Your task to perform on an android device: turn off location Image 0: 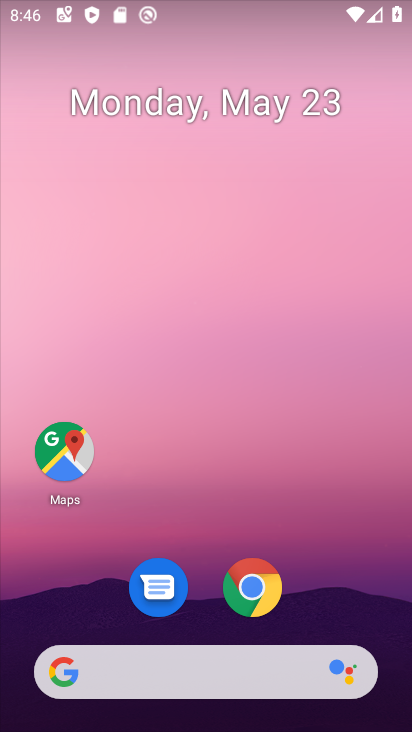
Step 0: drag from (322, 596) to (336, 150)
Your task to perform on an android device: turn off location Image 1: 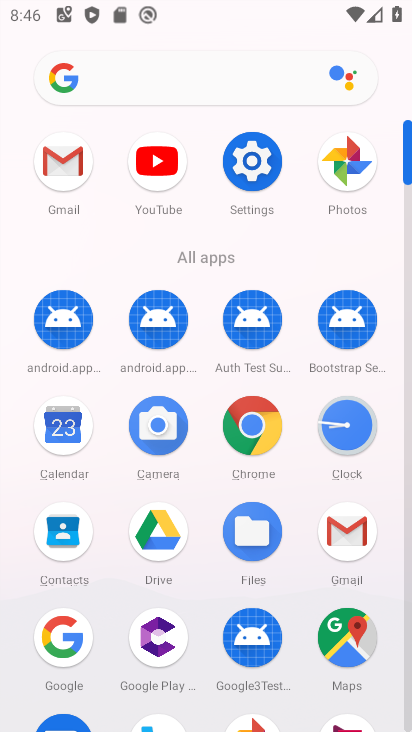
Step 1: click (256, 170)
Your task to perform on an android device: turn off location Image 2: 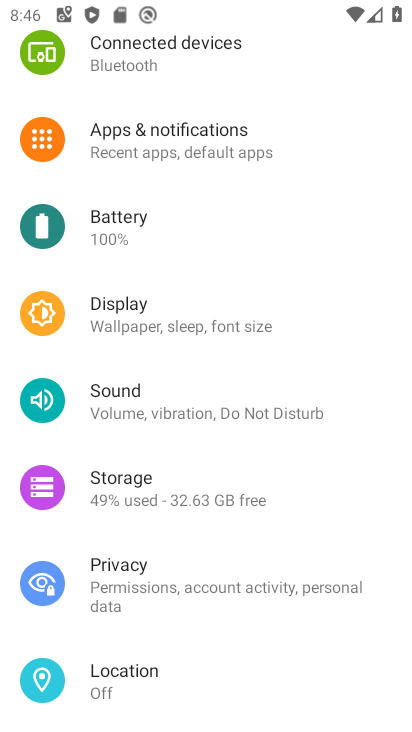
Step 2: click (135, 672)
Your task to perform on an android device: turn off location Image 3: 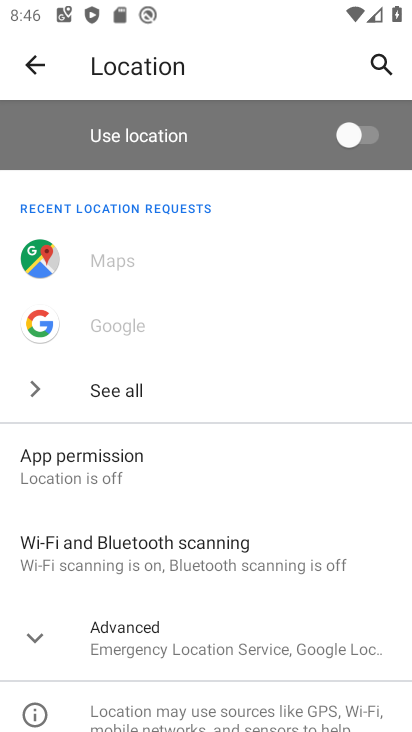
Step 3: task complete